Your task to perform on an android device: add a contact Image 0: 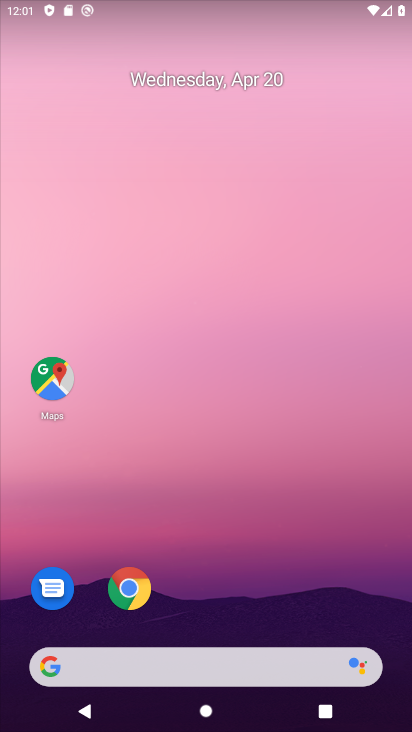
Step 0: drag from (181, 625) to (121, 120)
Your task to perform on an android device: add a contact Image 1: 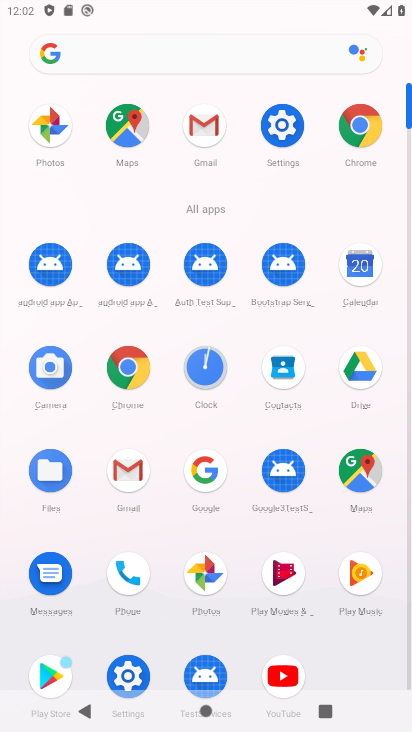
Step 1: click (134, 577)
Your task to perform on an android device: add a contact Image 2: 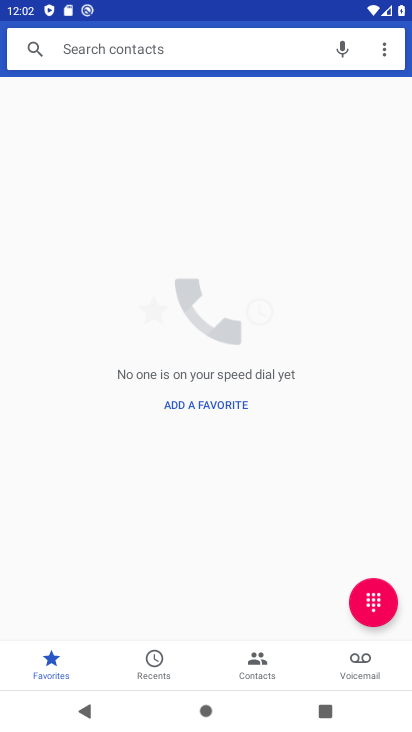
Step 2: click (243, 662)
Your task to perform on an android device: add a contact Image 3: 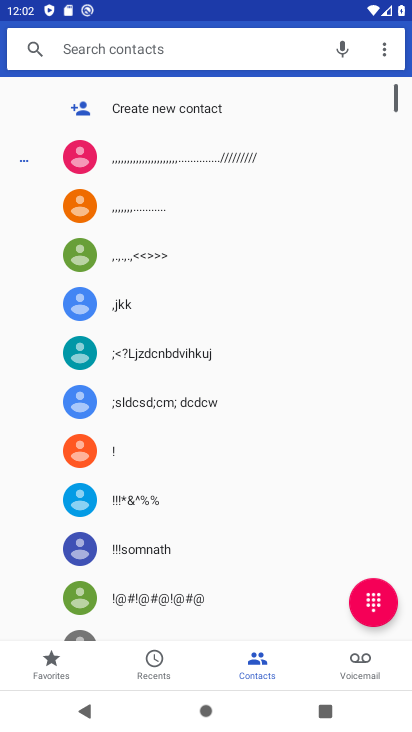
Step 3: click (164, 108)
Your task to perform on an android device: add a contact Image 4: 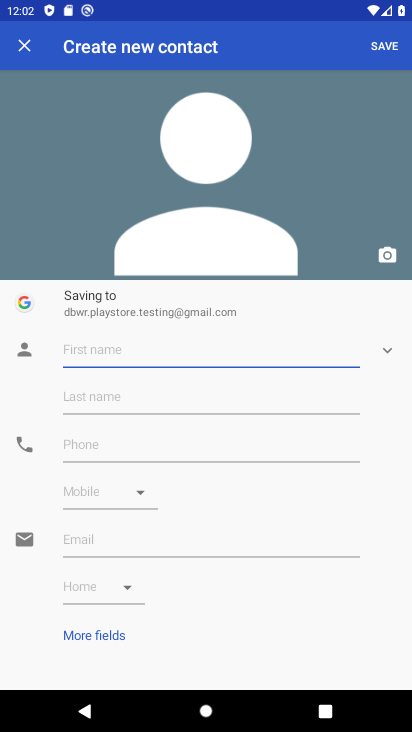
Step 4: type "bvn"
Your task to perform on an android device: add a contact Image 5: 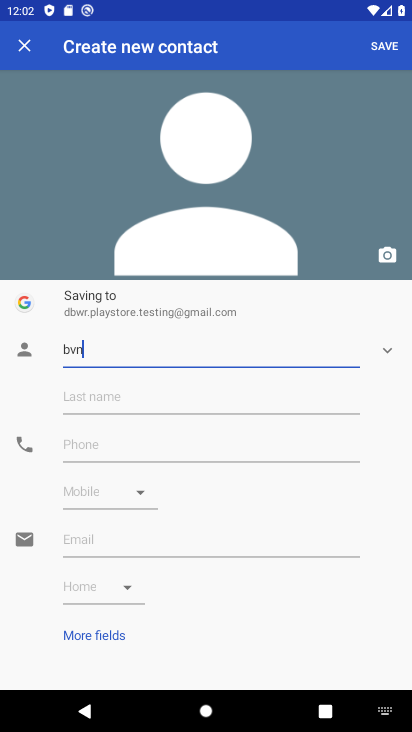
Step 5: click (210, 444)
Your task to perform on an android device: add a contact Image 6: 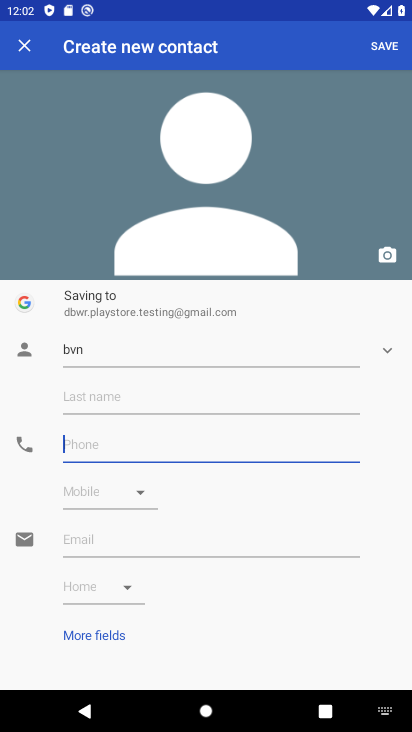
Step 6: type "9990"
Your task to perform on an android device: add a contact Image 7: 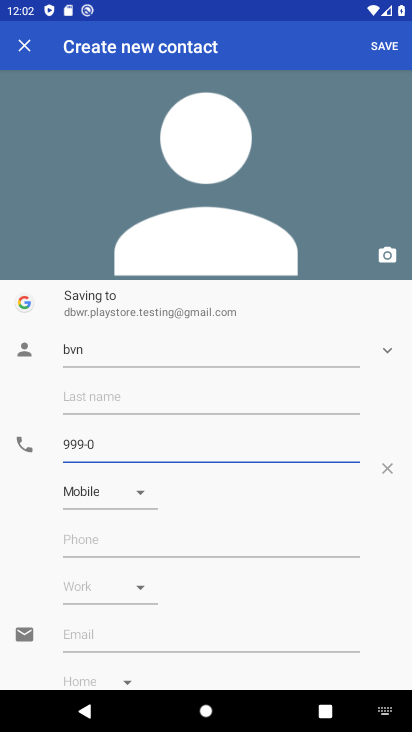
Step 7: click (382, 45)
Your task to perform on an android device: add a contact Image 8: 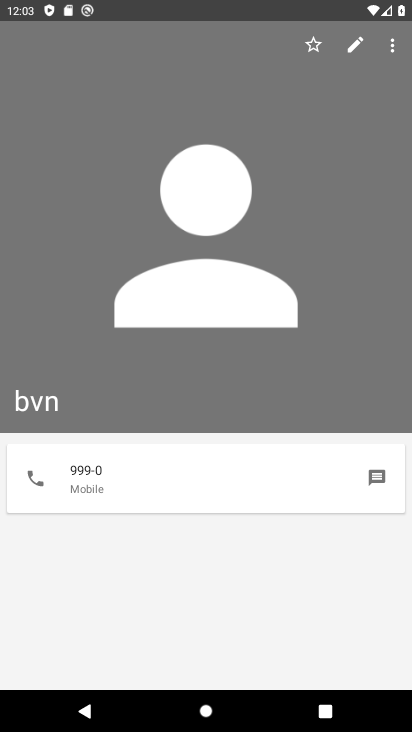
Step 8: task complete